Your task to perform on an android device: Show the shopping cart on target.com. Search for razer blade on target.com, select the first entry, add it to the cart, then select checkout. Image 0: 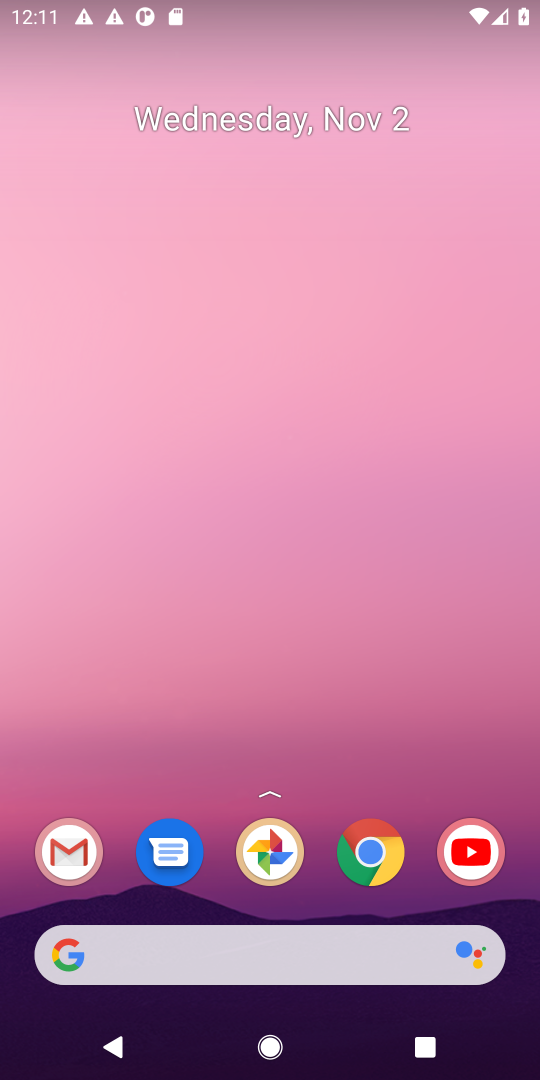
Step 0: press home button
Your task to perform on an android device: Show the shopping cart on target.com. Search for razer blade on target.com, select the first entry, add it to the cart, then select checkout. Image 1: 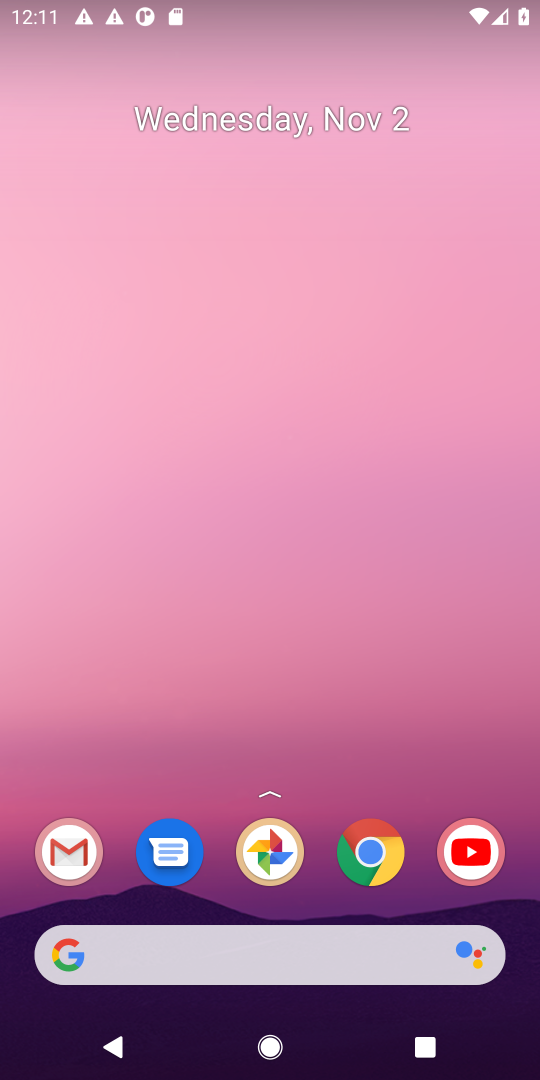
Step 1: click (66, 941)
Your task to perform on an android device: Show the shopping cart on target.com. Search for razer blade on target.com, select the first entry, add it to the cart, then select checkout. Image 2: 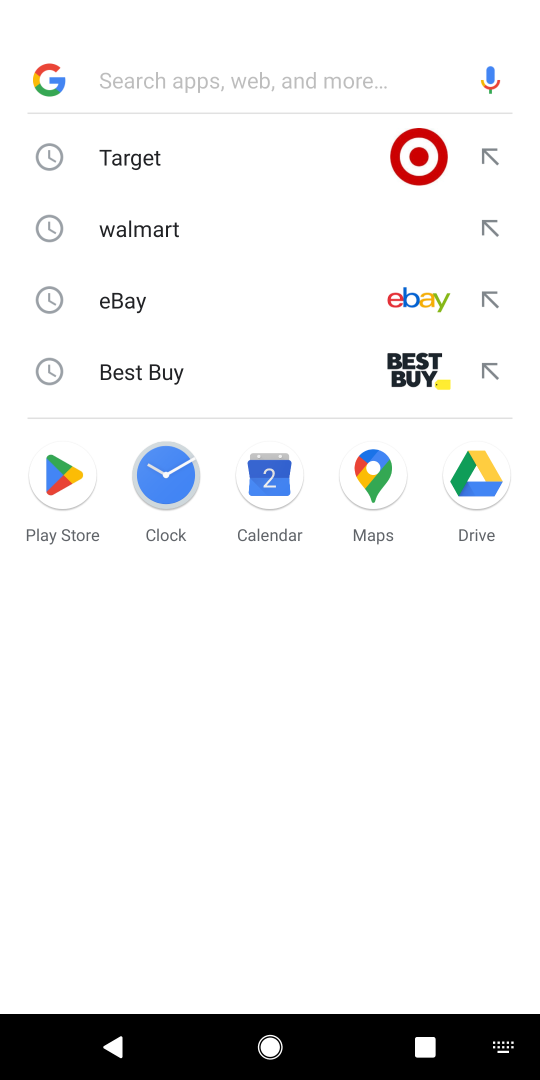
Step 2: click (123, 160)
Your task to perform on an android device: Show the shopping cart on target.com. Search for razer blade on target.com, select the first entry, add it to the cart, then select checkout. Image 3: 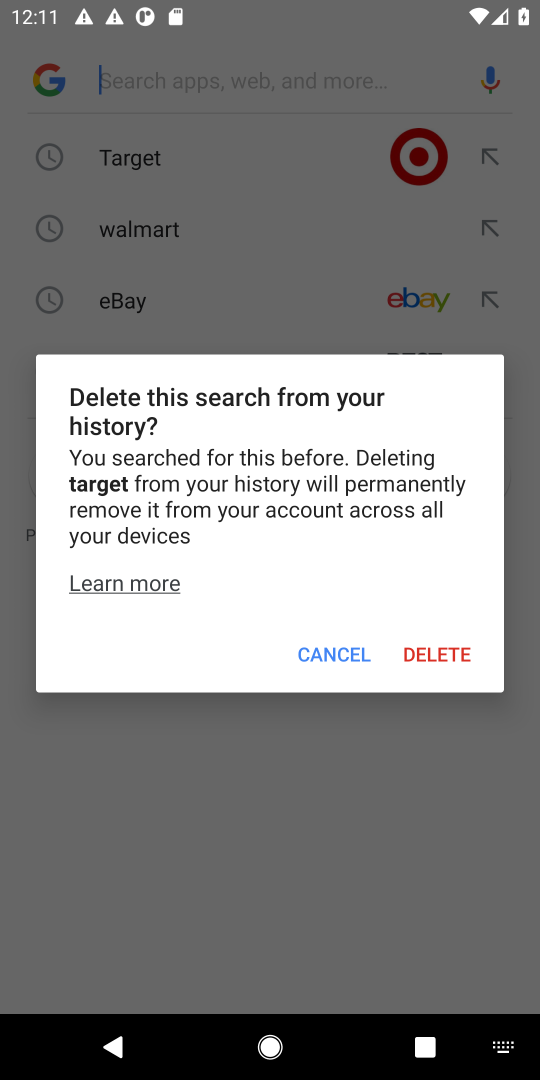
Step 3: click (352, 653)
Your task to perform on an android device: Show the shopping cart on target.com. Search for razer blade on target.com, select the first entry, add it to the cart, then select checkout. Image 4: 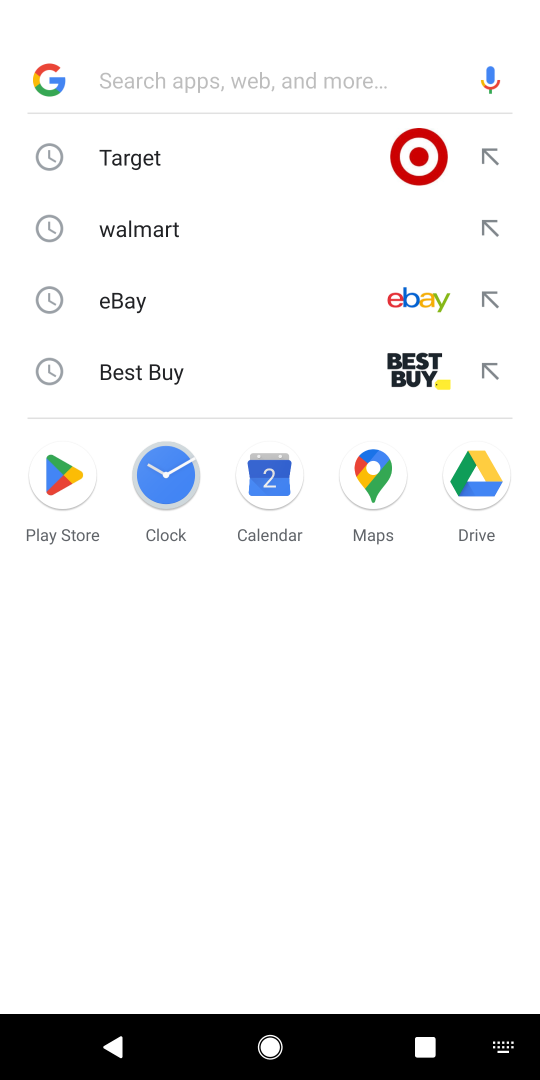
Step 4: click (136, 155)
Your task to perform on an android device: Show the shopping cart on target.com. Search for razer blade on target.com, select the first entry, add it to the cart, then select checkout. Image 5: 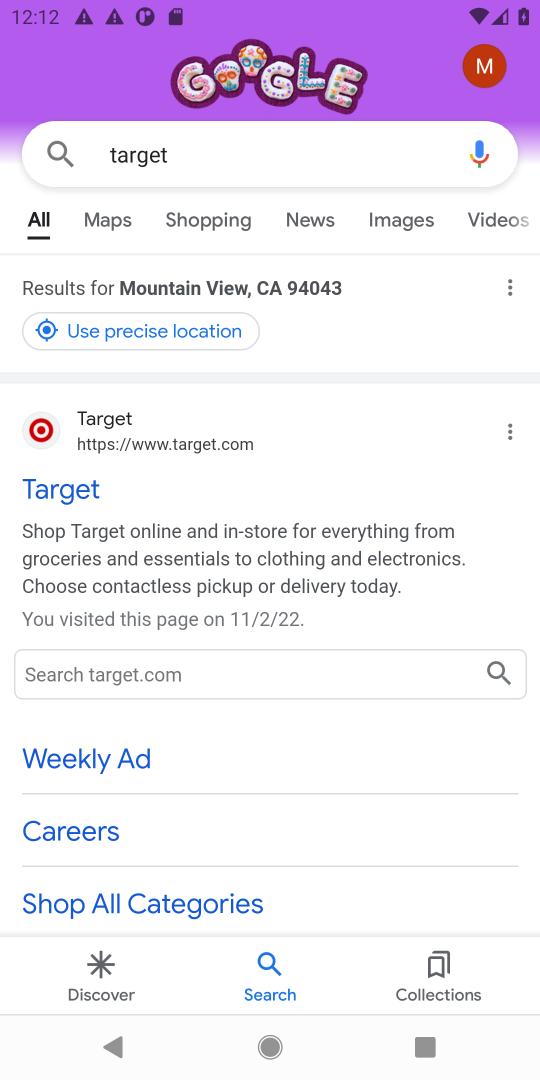
Step 5: click (79, 492)
Your task to perform on an android device: Show the shopping cart on target.com. Search for razer blade on target.com, select the first entry, add it to the cart, then select checkout. Image 6: 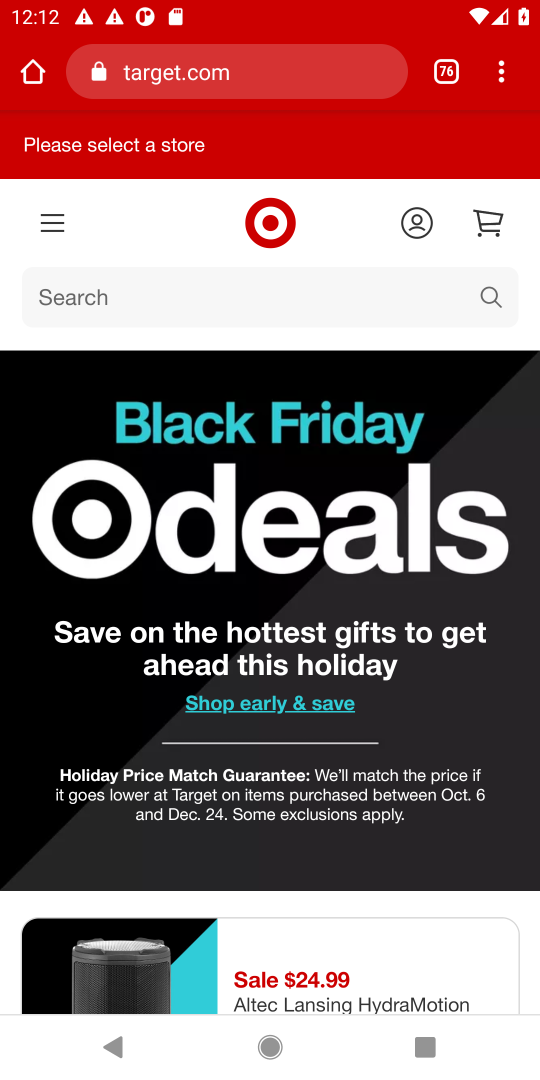
Step 6: click (137, 292)
Your task to perform on an android device: Show the shopping cart on target.com. Search for razer blade on target.com, select the first entry, add it to the cart, then select checkout. Image 7: 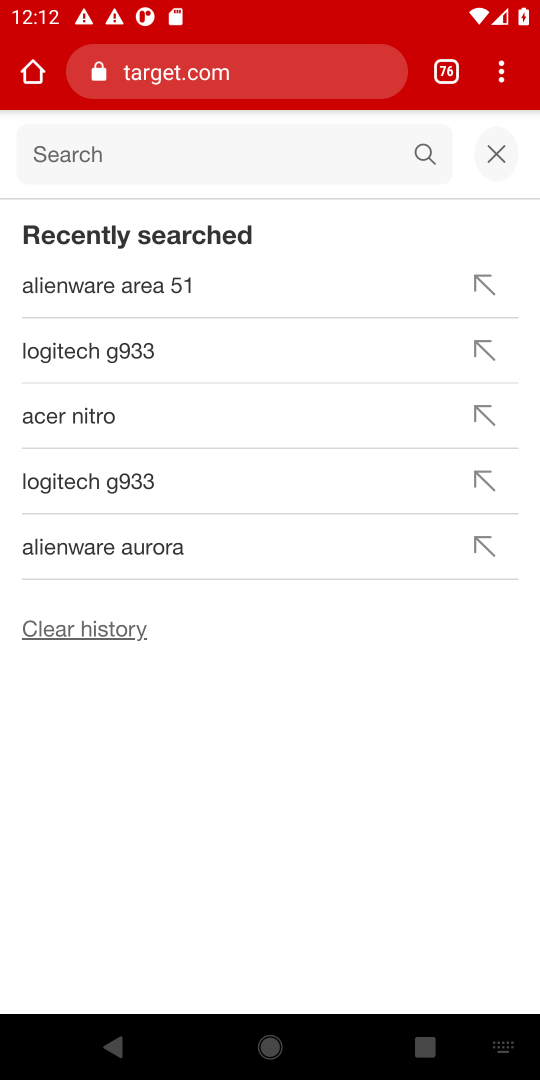
Step 7: type " razer blade"
Your task to perform on an android device: Show the shopping cart on target.com. Search for razer blade on target.com, select the first entry, add it to the cart, then select checkout. Image 8: 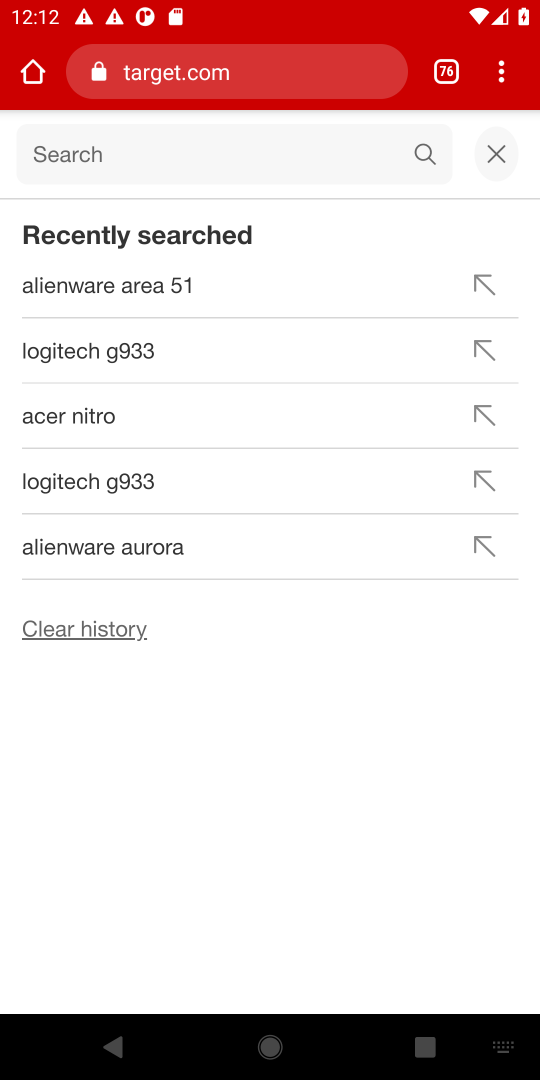
Step 8: click (129, 159)
Your task to perform on an android device: Show the shopping cart on target.com. Search for razer blade on target.com, select the first entry, add it to the cart, then select checkout. Image 9: 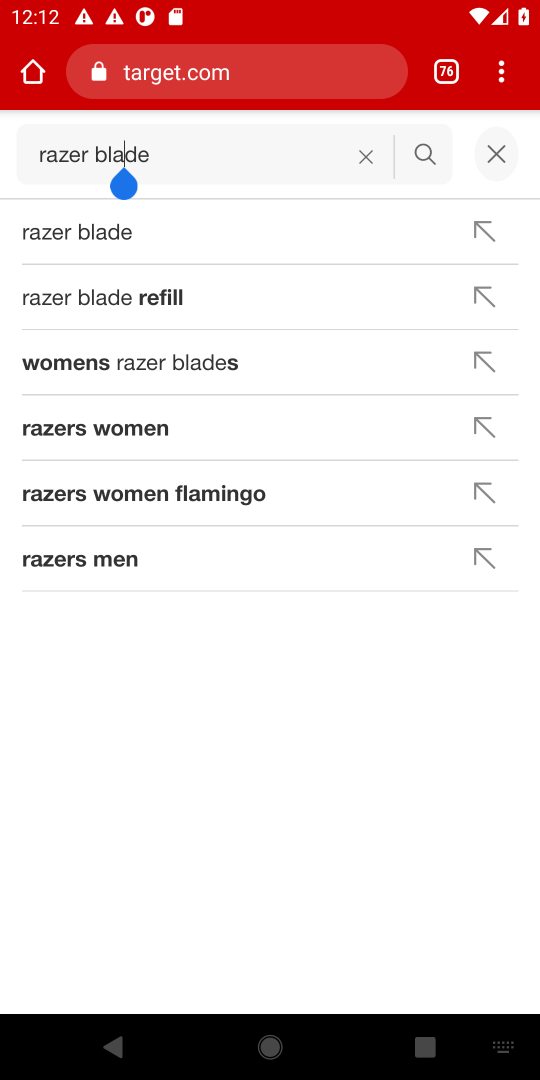
Step 9: press enter
Your task to perform on an android device: Show the shopping cart on target.com. Search for razer blade on target.com, select the first entry, add it to the cart, then select checkout. Image 10: 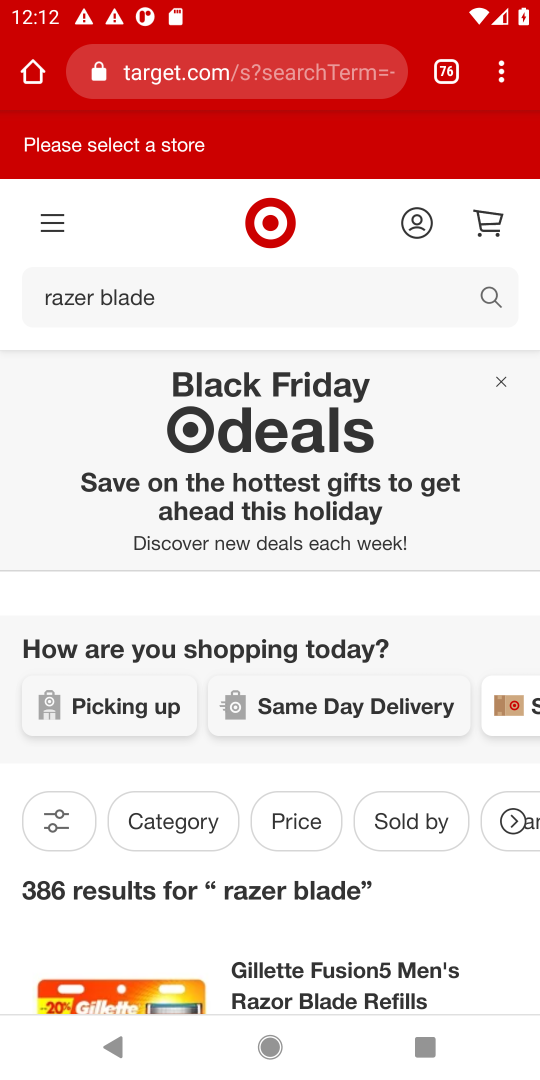
Step 10: click (372, 973)
Your task to perform on an android device: Show the shopping cart on target.com. Search for razer blade on target.com, select the first entry, add it to the cart, then select checkout. Image 11: 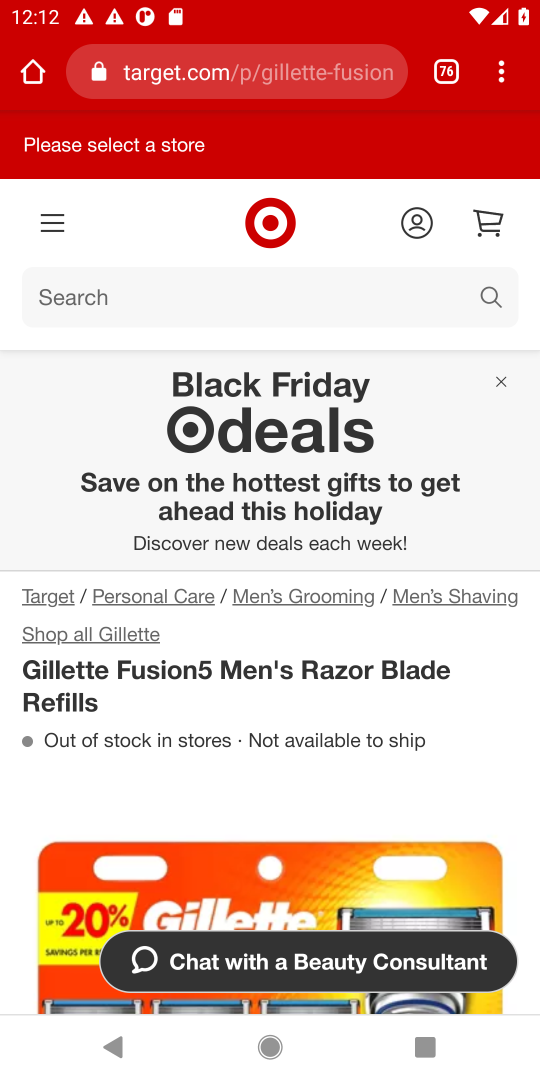
Step 11: drag from (421, 780) to (488, 332)
Your task to perform on an android device: Show the shopping cart on target.com. Search for razer blade on target.com, select the first entry, add it to the cart, then select checkout. Image 12: 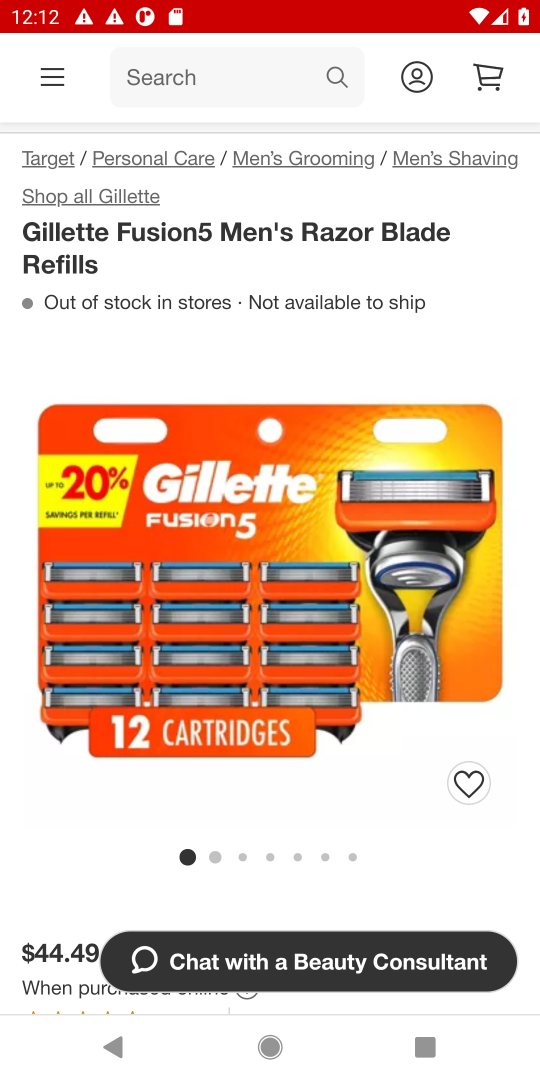
Step 12: drag from (403, 890) to (502, 352)
Your task to perform on an android device: Show the shopping cart on target.com. Search for razer blade on target.com, select the first entry, add it to the cart, then select checkout. Image 13: 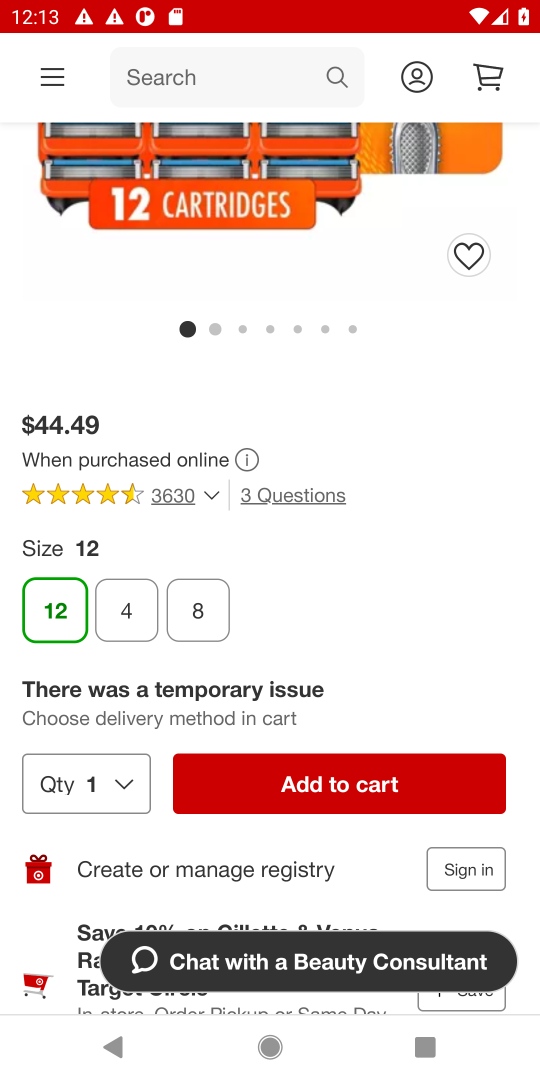
Step 13: click (371, 798)
Your task to perform on an android device: Show the shopping cart on target.com. Search for razer blade on target.com, select the first entry, add it to the cart, then select checkout. Image 14: 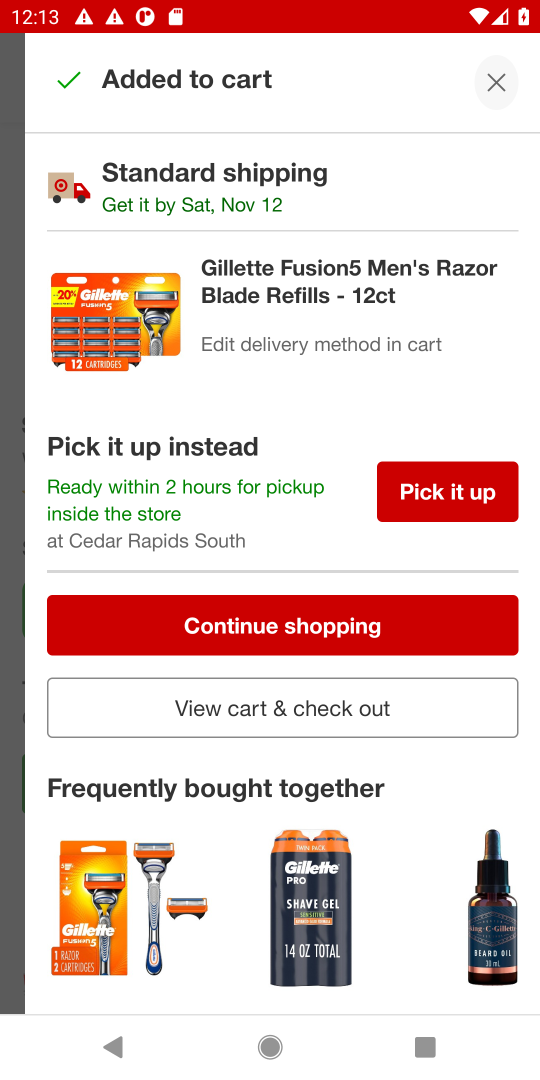
Step 14: click (275, 709)
Your task to perform on an android device: Show the shopping cart on target.com. Search for razer blade on target.com, select the first entry, add it to the cart, then select checkout. Image 15: 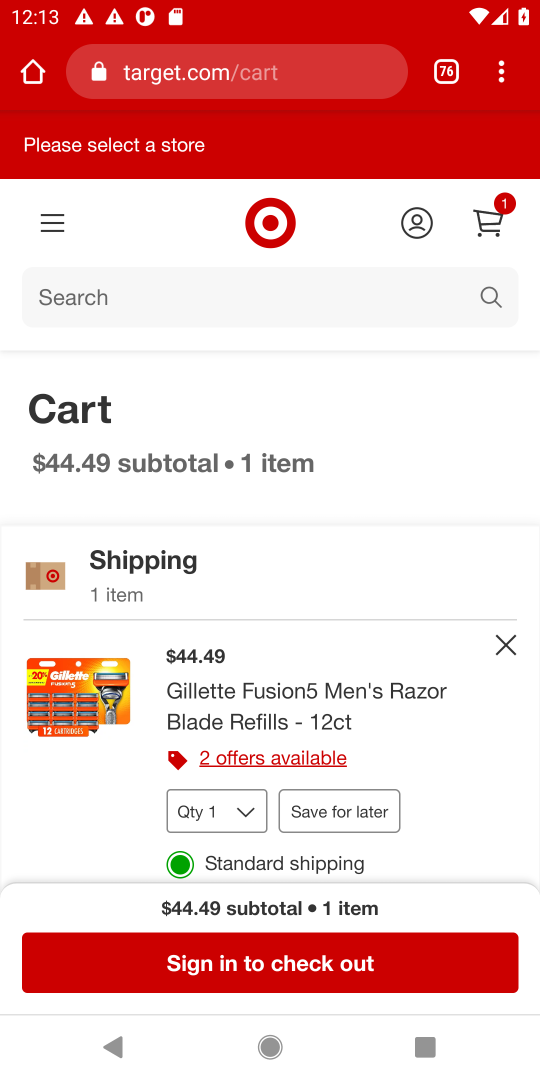
Step 15: click (281, 965)
Your task to perform on an android device: Show the shopping cart on target.com. Search for razer blade on target.com, select the first entry, add it to the cart, then select checkout. Image 16: 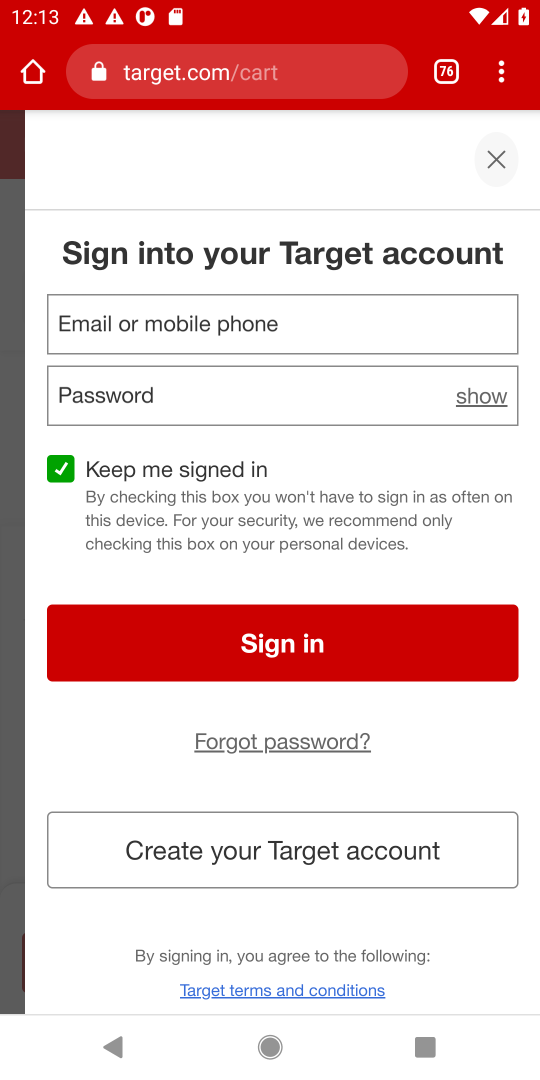
Step 16: task complete